Your task to perform on an android device: turn on showing notifications on the lock screen Image 0: 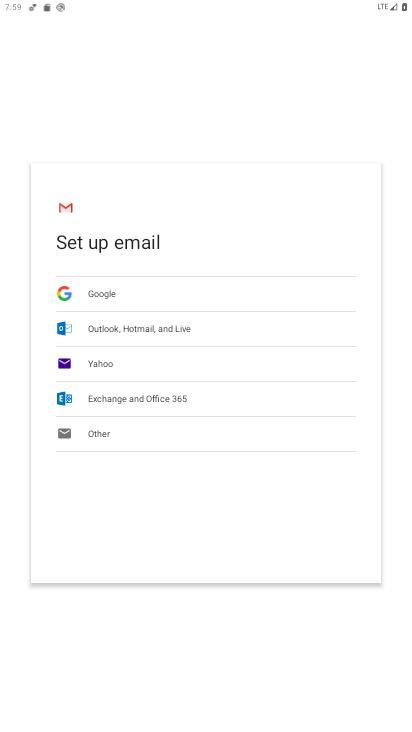
Step 0: press home button
Your task to perform on an android device: turn on showing notifications on the lock screen Image 1: 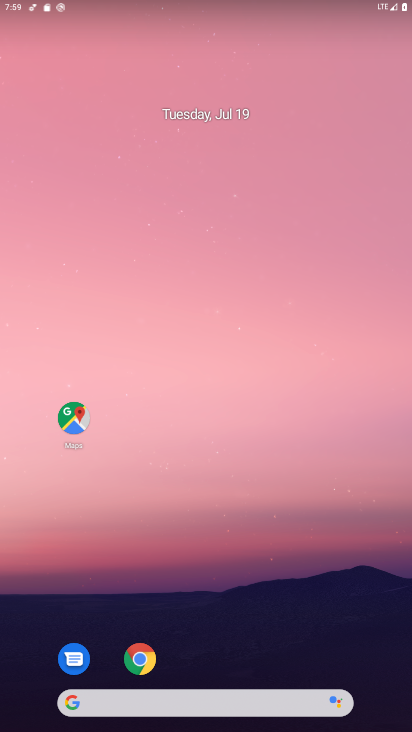
Step 1: drag from (198, 548) to (106, 6)
Your task to perform on an android device: turn on showing notifications on the lock screen Image 2: 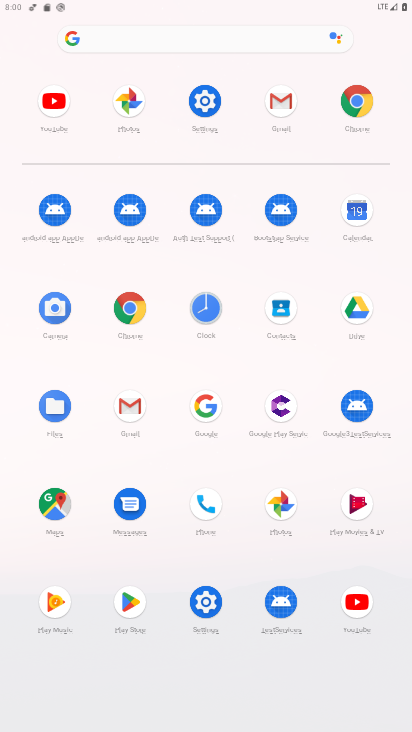
Step 2: click (211, 613)
Your task to perform on an android device: turn on showing notifications on the lock screen Image 3: 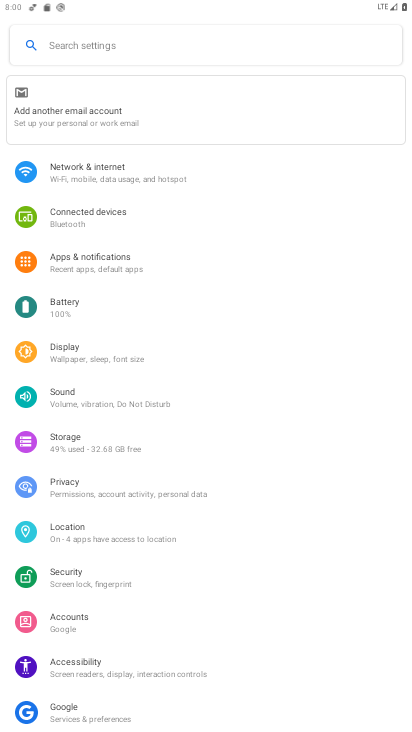
Step 3: click (102, 253)
Your task to perform on an android device: turn on showing notifications on the lock screen Image 4: 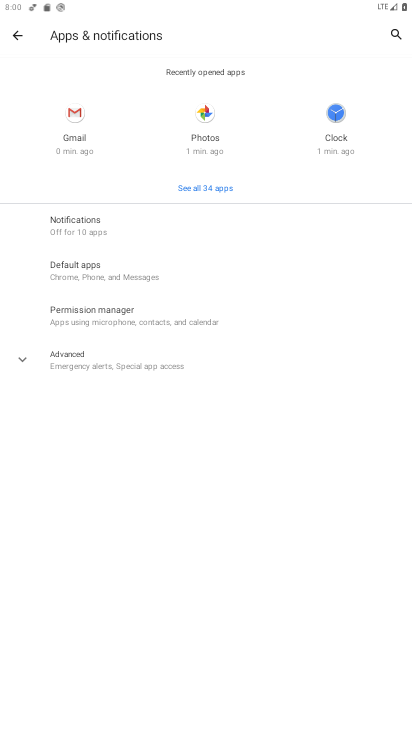
Step 4: click (91, 232)
Your task to perform on an android device: turn on showing notifications on the lock screen Image 5: 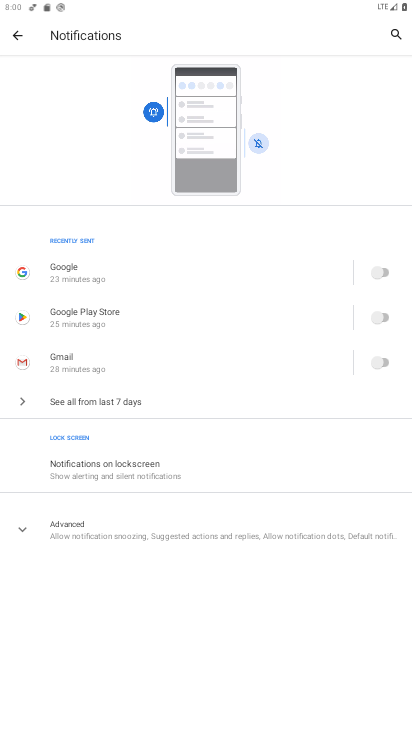
Step 5: click (139, 471)
Your task to perform on an android device: turn on showing notifications on the lock screen Image 6: 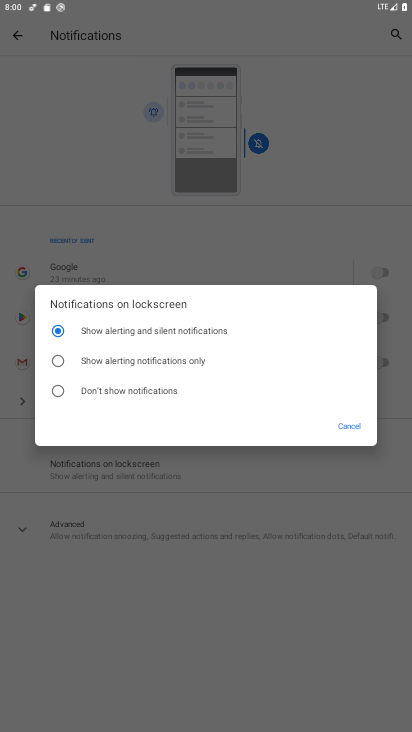
Step 6: task complete